Your task to perform on an android device: move an email to a new category in the gmail app Image 0: 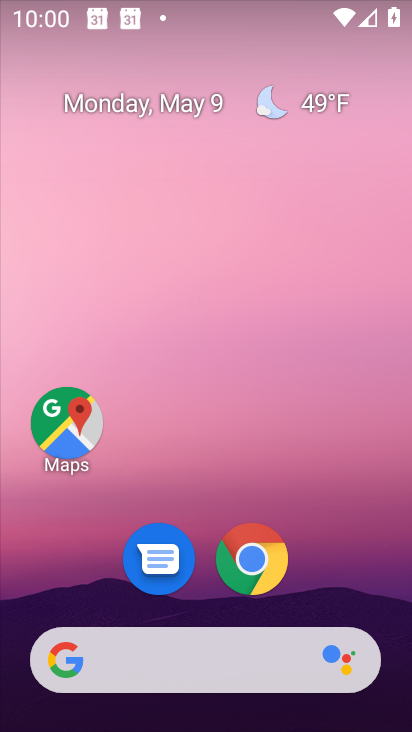
Step 0: drag from (202, 726) to (202, 121)
Your task to perform on an android device: move an email to a new category in the gmail app Image 1: 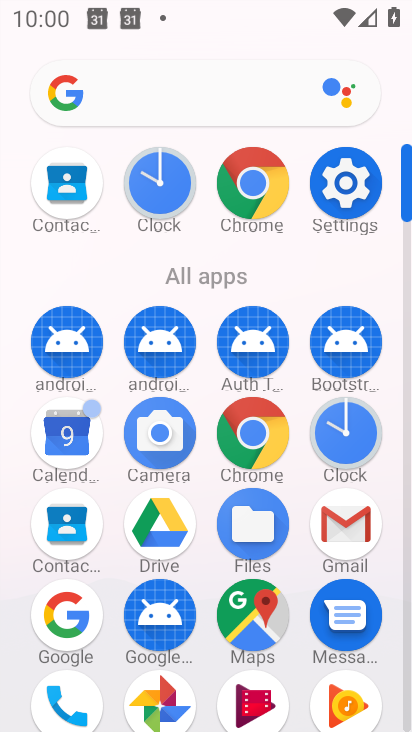
Step 1: click (348, 520)
Your task to perform on an android device: move an email to a new category in the gmail app Image 2: 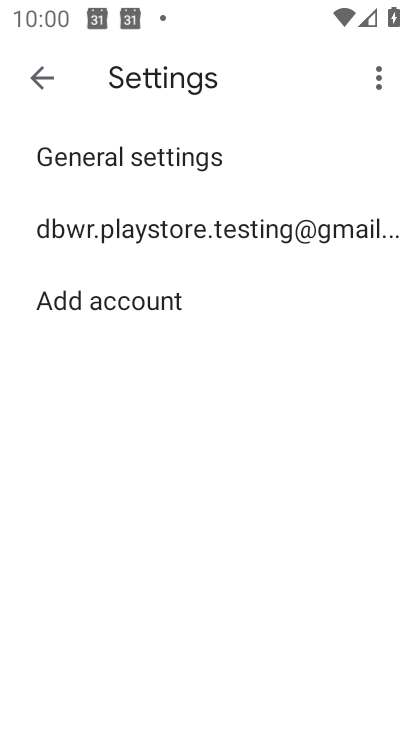
Step 2: click (41, 76)
Your task to perform on an android device: move an email to a new category in the gmail app Image 3: 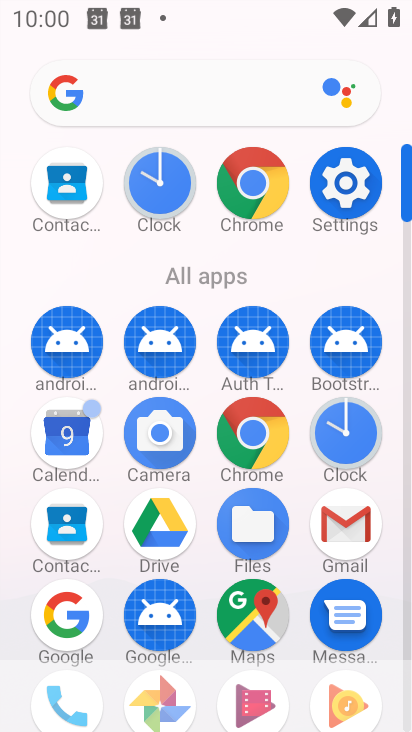
Step 3: click (347, 517)
Your task to perform on an android device: move an email to a new category in the gmail app Image 4: 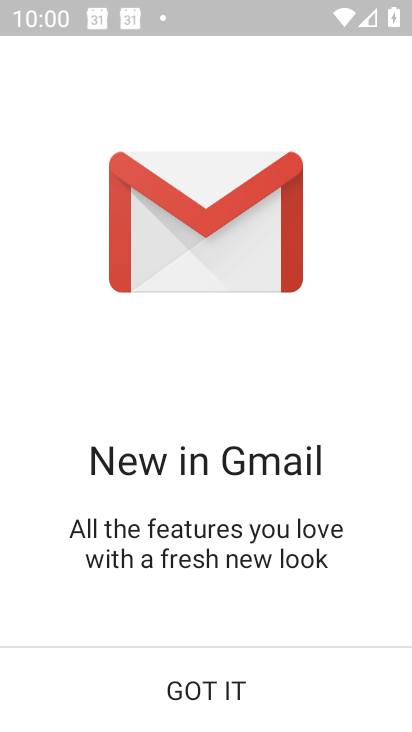
Step 4: click (222, 683)
Your task to perform on an android device: move an email to a new category in the gmail app Image 5: 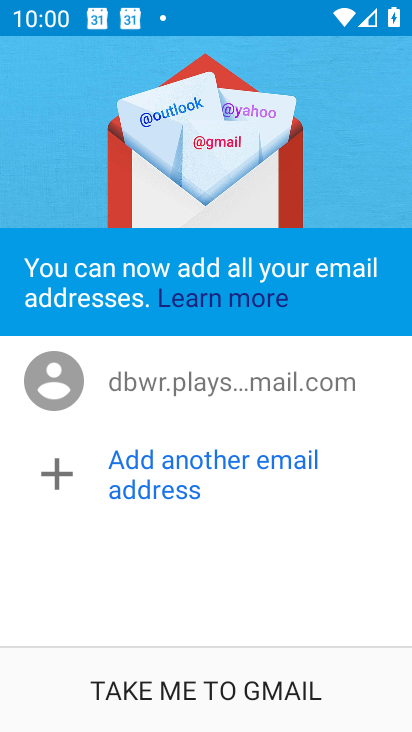
Step 5: click (205, 692)
Your task to perform on an android device: move an email to a new category in the gmail app Image 6: 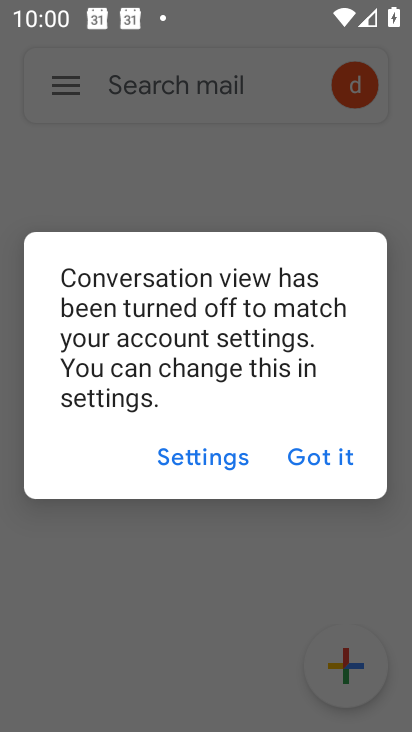
Step 6: click (306, 454)
Your task to perform on an android device: move an email to a new category in the gmail app Image 7: 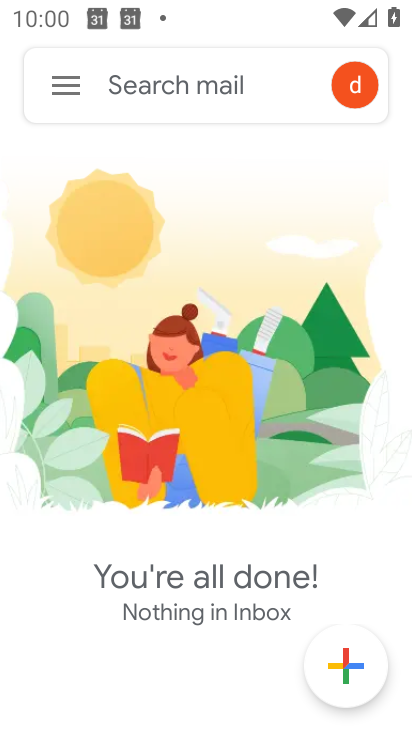
Step 7: task complete